Your task to perform on an android device: Open Google Chrome and open the bookmarks view Image 0: 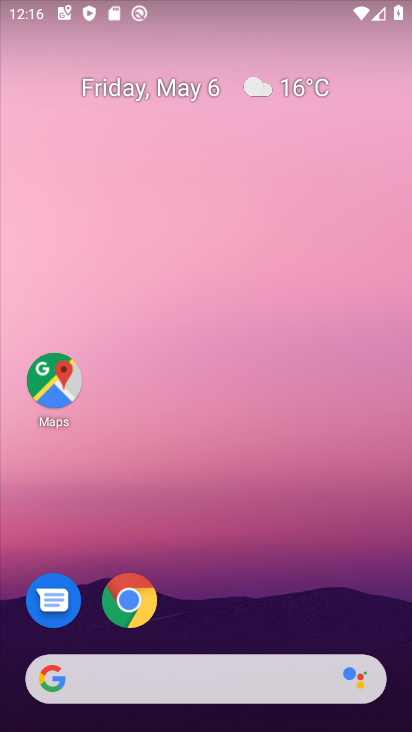
Step 0: click (124, 606)
Your task to perform on an android device: Open Google Chrome and open the bookmarks view Image 1: 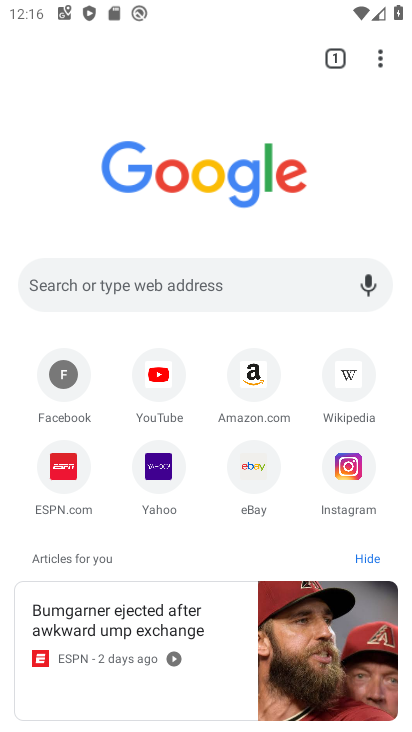
Step 1: click (376, 53)
Your task to perform on an android device: Open Google Chrome and open the bookmarks view Image 2: 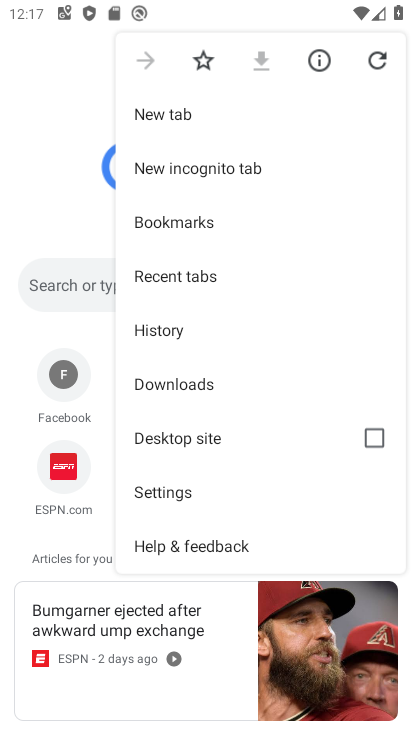
Step 2: click (200, 219)
Your task to perform on an android device: Open Google Chrome and open the bookmarks view Image 3: 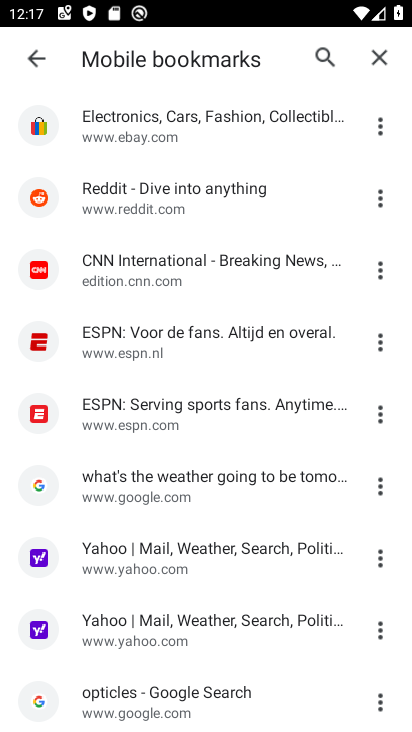
Step 3: task complete